Your task to perform on an android device: all mails in gmail Image 0: 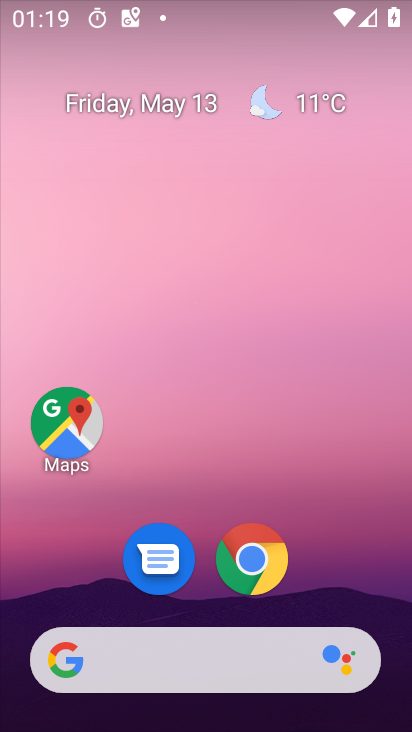
Step 0: drag from (312, 556) to (305, 76)
Your task to perform on an android device: all mails in gmail Image 1: 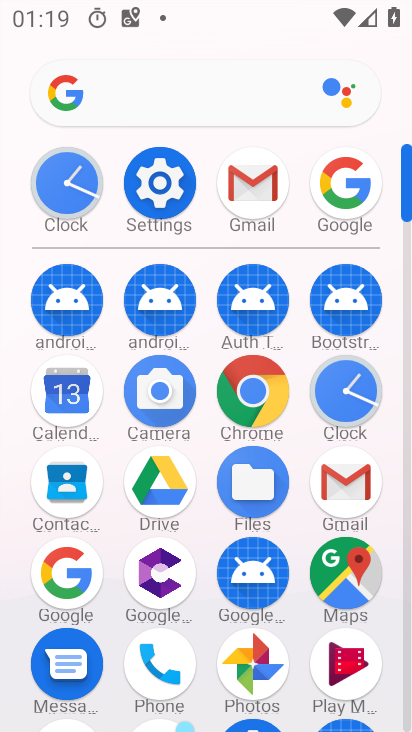
Step 1: click (252, 214)
Your task to perform on an android device: all mails in gmail Image 2: 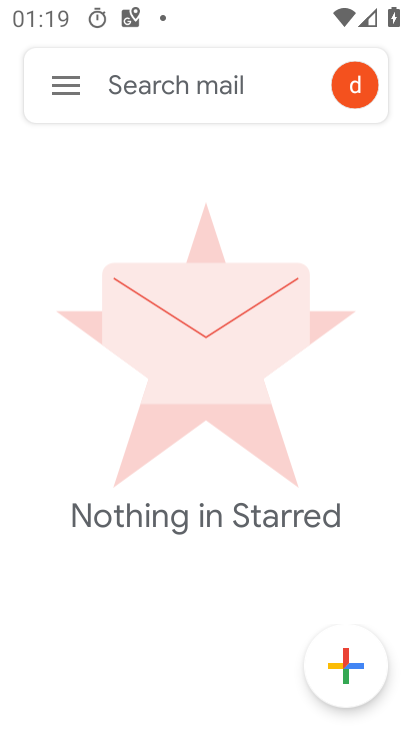
Step 2: click (71, 77)
Your task to perform on an android device: all mails in gmail Image 3: 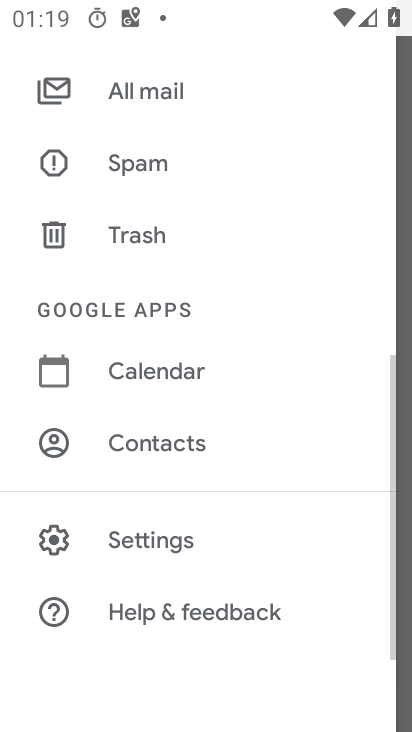
Step 3: click (153, 91)
Your task to perform on an android device: all mails in gmail Image 4: 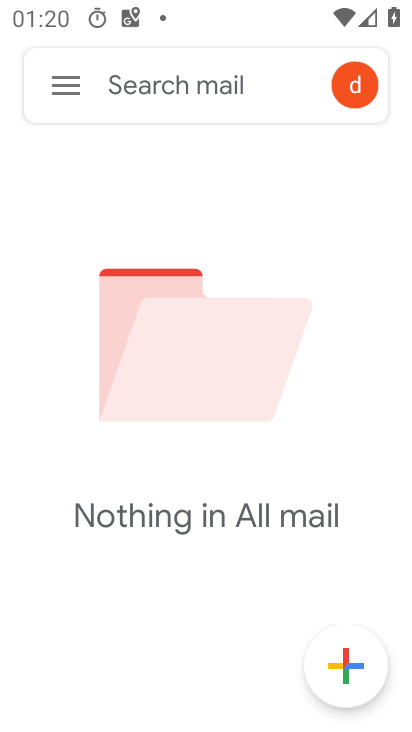
Step 4: task complete